Your task to perform on an android device: Go to Maps Image 0: 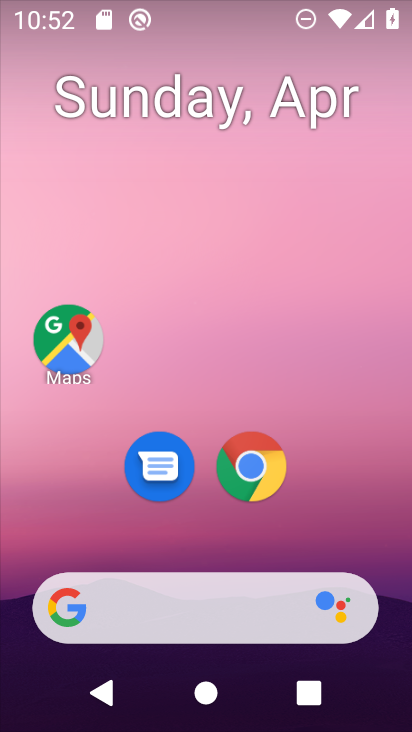
Step 0: drag from (364, 495) to (363, 133)
Your task to perform on an android device: Go to Maps Image 1: 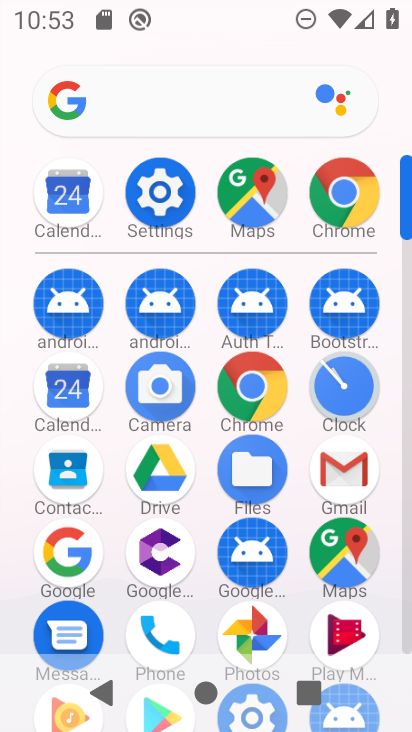
Step 1: click (256, 193)
Your task to perform on an android device: Go to Maps Image 2: 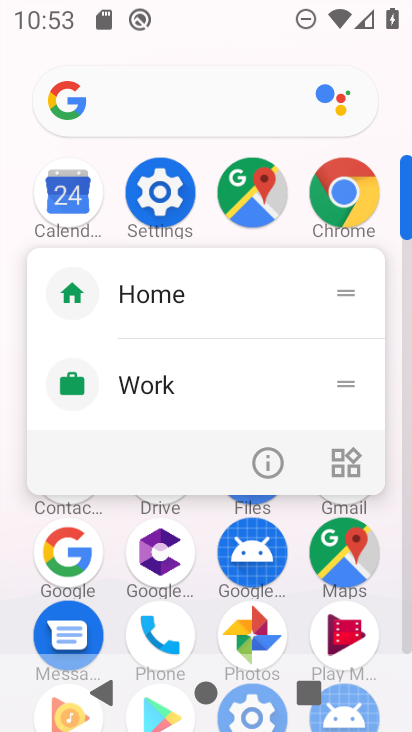
Step 2: click (255, 182)
Your task to perform on an android device: Go to Maps Image 3: 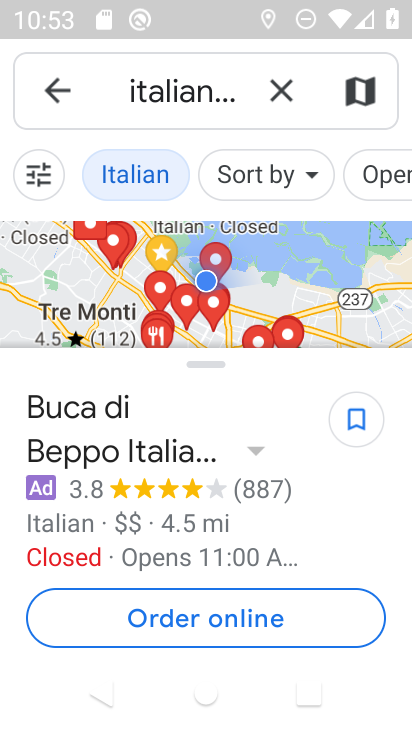
Step 3: task complete